Your task to perform on an android device: Open wifi settings Image 0: 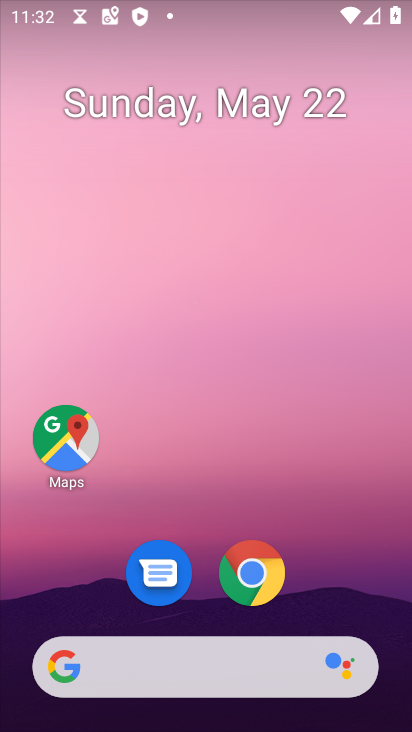
Step 0: press home button
Your task to perform on an android device: Open wifi settings Image 1: 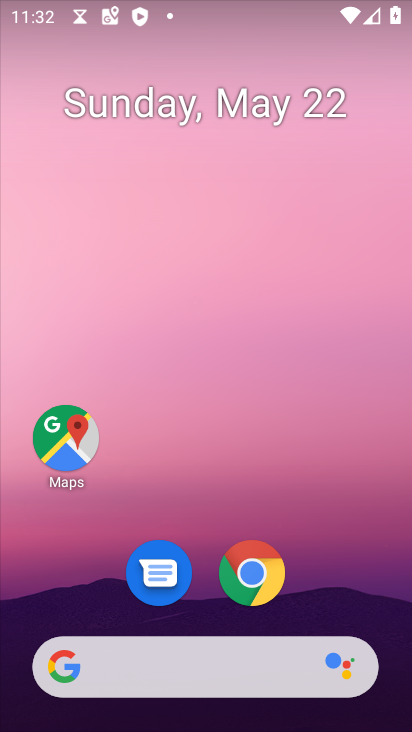
Step 1: drag from (218, 657) to (343, 104)
Your task to perform on an android device: Open wifi settings Image 2: 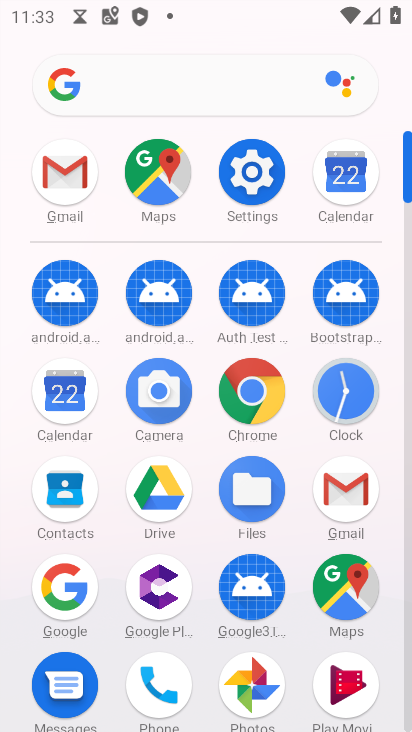
Step 2: click (260, 186)
Your task to perform on an android device: Open wifi settings Image 3: 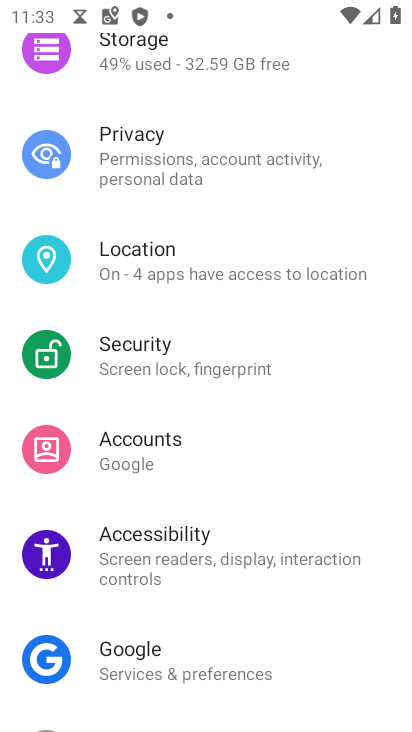
Step 3: drag from (248, 123) to (230, 666)
Your task to perform on an android device: Open wifi settings Image 4: 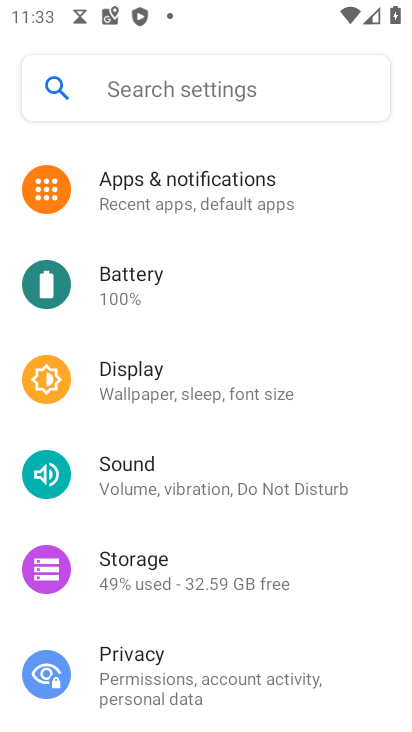
Step 4: drag from (238, 268) to (243, 707)
Your task to perform on an android device: Open wifi settings Image 5: 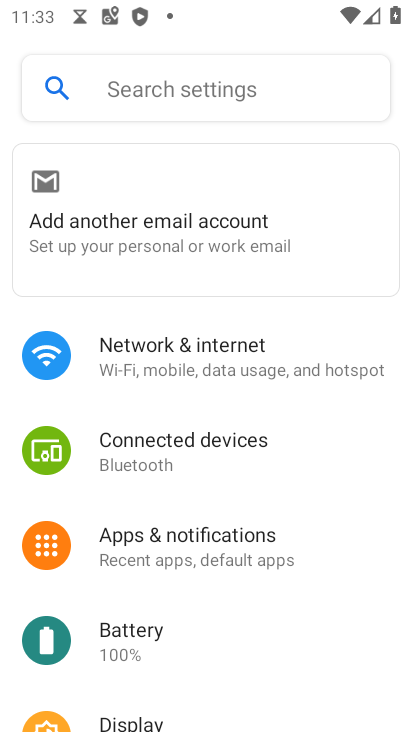
Step 5: click (237, 364)
Your task to perform on an android device: Open wifi settings Image 6: 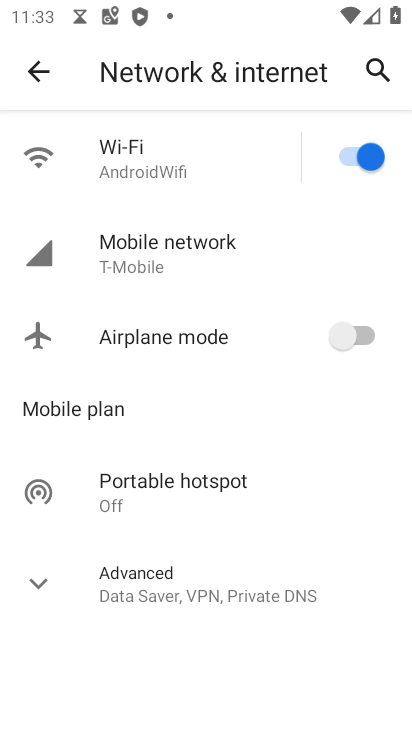
Step 6: click (171, 172)
Your task to perform on an android device: Open wifi settings Image 7: 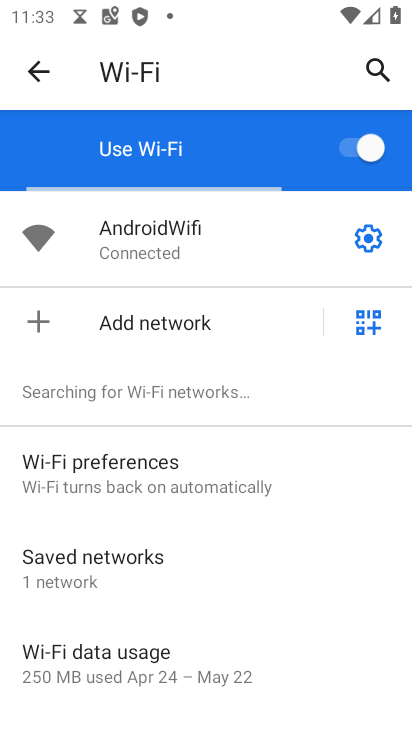
Step 7: task complete